Your task to perform on an android device: clear all cookies in the chrome app Image 0: 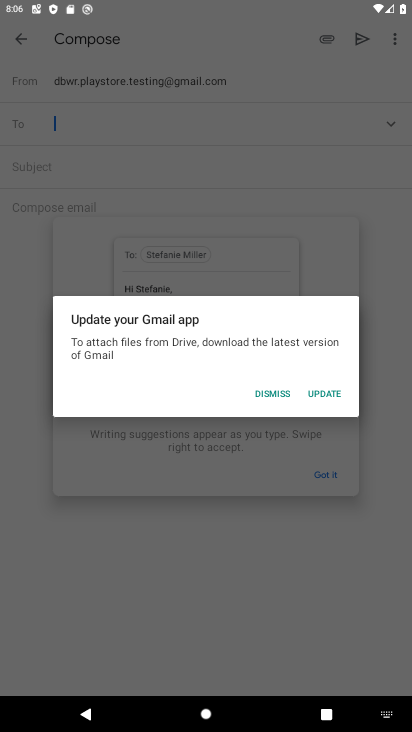
Step 0: press home button
Your task to perform on an android device: clear all cookies in the chrome app Image 1: 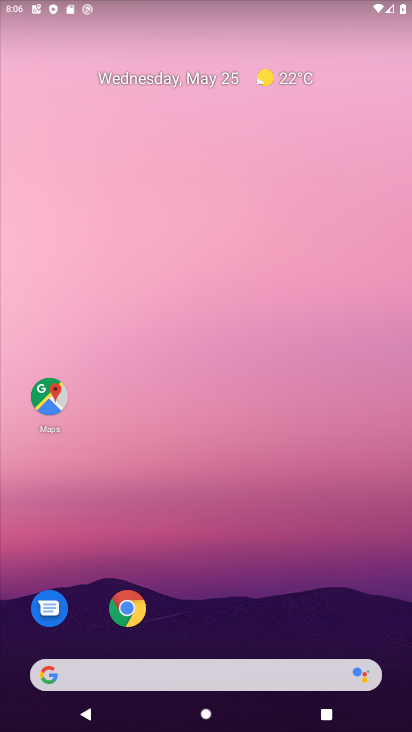
Step 1: click (126, 607)
Your task to perform on an android device: clear all cookies in the chrome app Image 2: 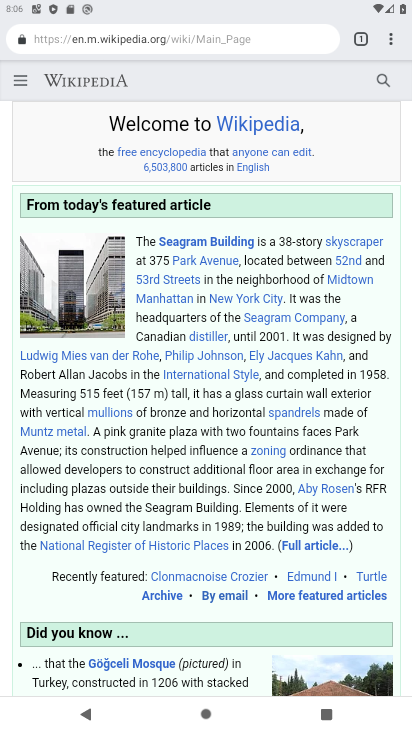
Step 2: click (392, 38)
Your task to perform on an android device: clear all cookies in the chrome app Image 3: 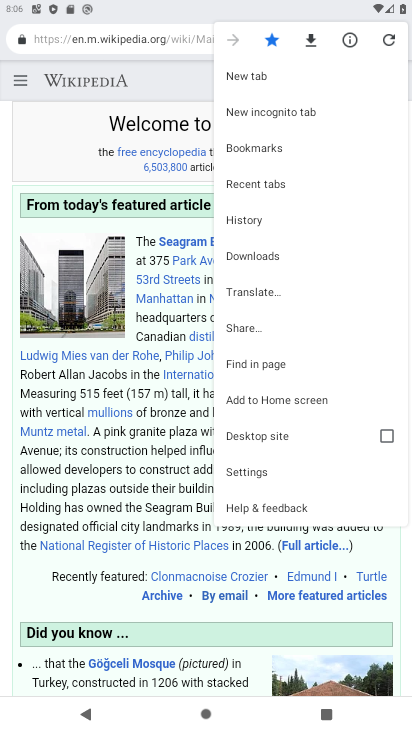
Step 3: click (261, 472)
Your task to perform on an android device: clear all cookies in the chrome app Image 4: 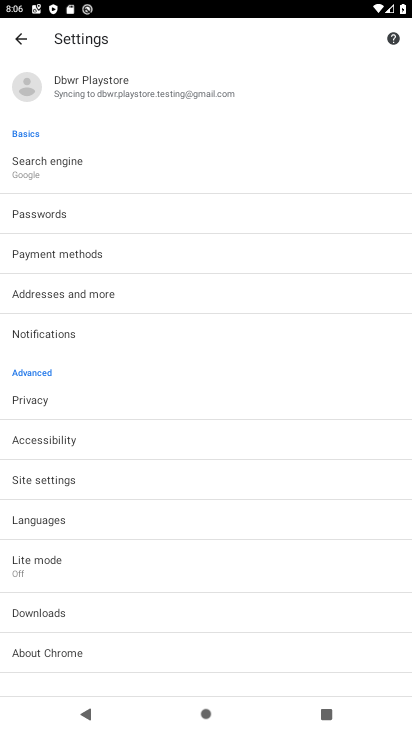
Step 4: click (32, 399)
Your task to perform on an android device: clear all cookies in the chrome app Image 5: 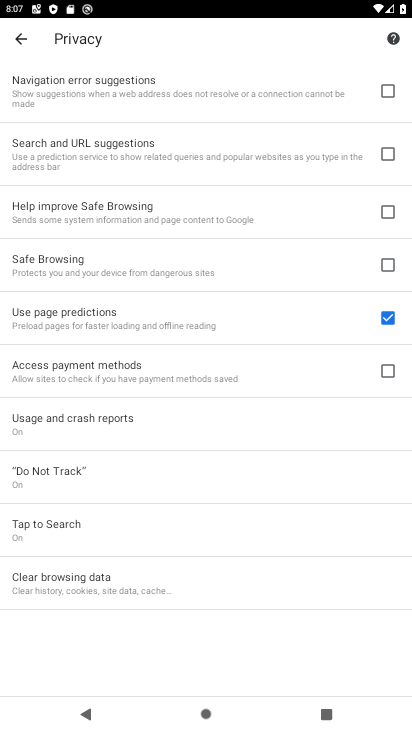
Step 5: click (90, 581)
Your task to perform on an android device: clear all cookies in the chrome app Image 6: 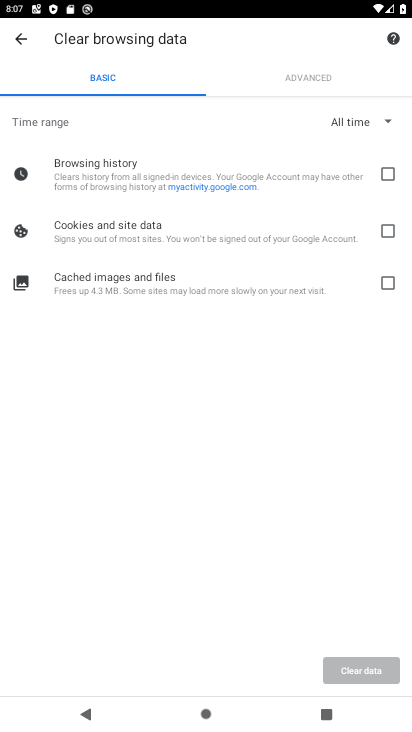
Step 6: click (391, 228)
Your task to perform on an android device: clear all cookies in the chrome app Image 7: 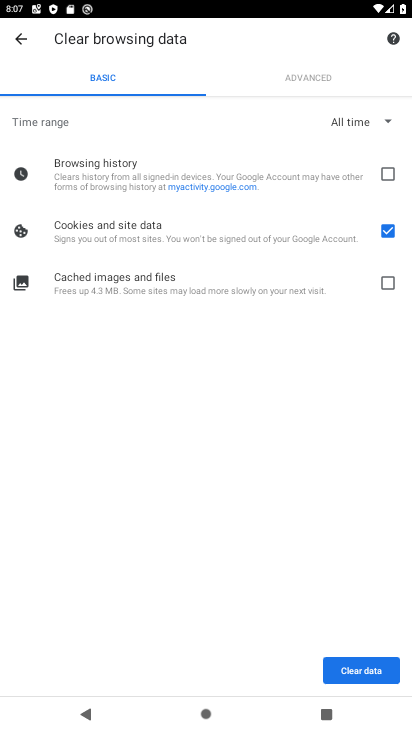
Step 7: click (369, 666)
Your task to perform on an android device: clear all cookies in the chrome app Image 8: 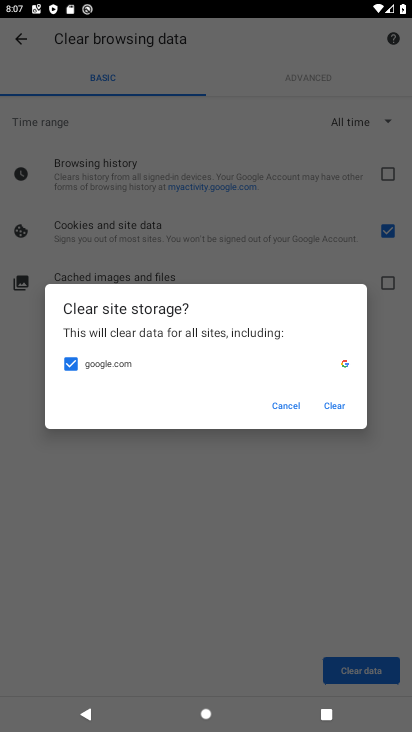
Step 8: click (336, 407)
Your task to perform on an android device: clear all cookies in the chrome app Image 9: 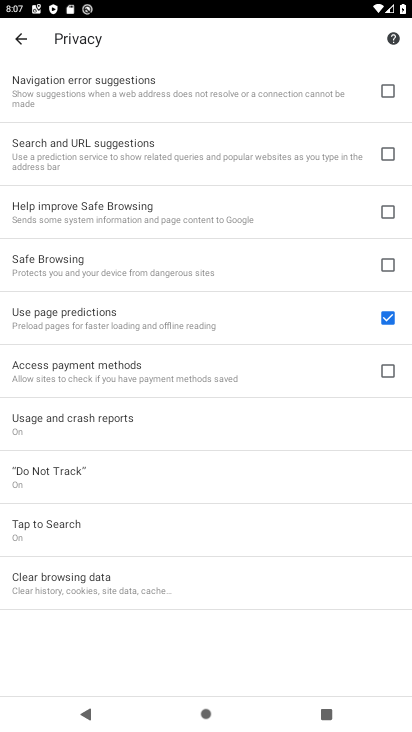
Step 9: task complete